Your task to perform on an android device: Check the weather Image 0: 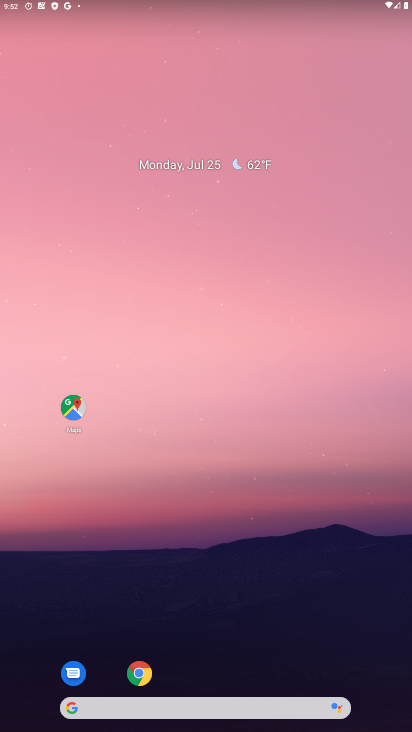
Step 0: drag from (206, 635) to (235, 128)
Your task to perform on an android device: Check the weather Image 1: 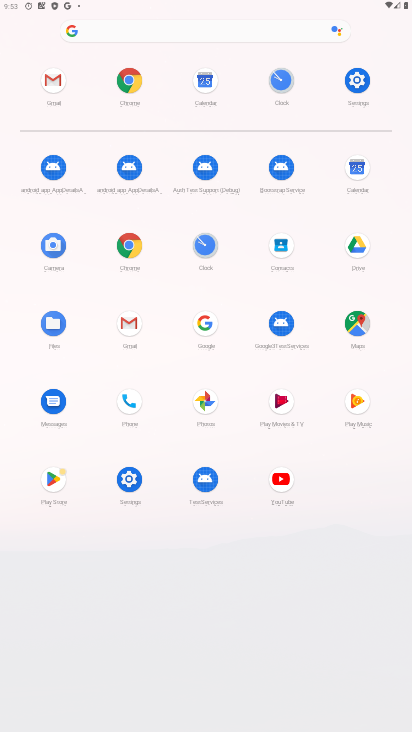
Step 1: click (198, 29)
Your task to perform on an android device: Check the weather Image 2: 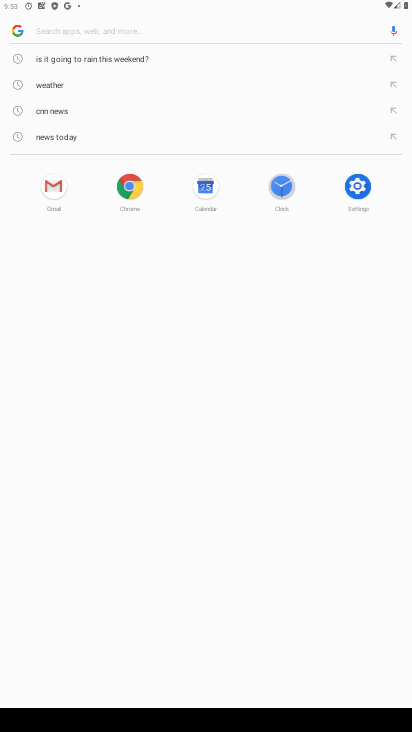
Step 2: click (65, 85)
Your task to perform on an android device: Check the weather Image 3: 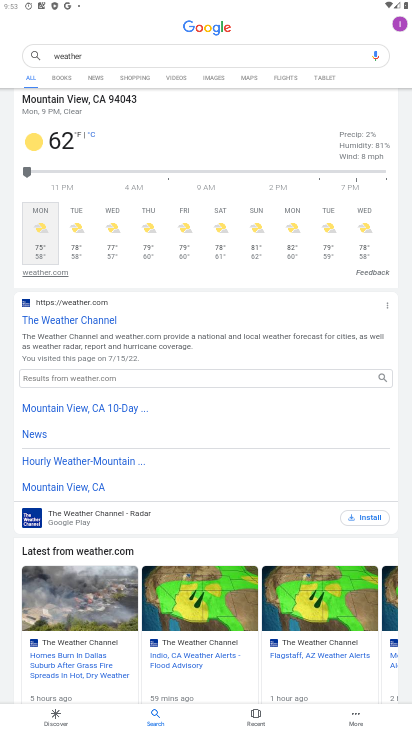
Step 3: task complete